Your task to perform on an android device: What is the news today? Image 0: 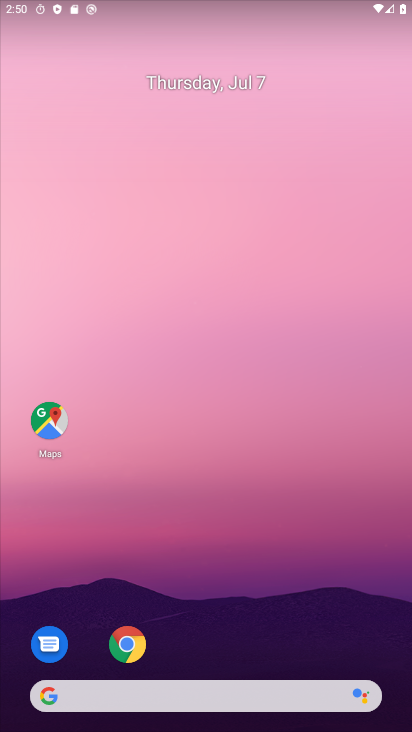
Step 0: drag from (22, 487) to (388, 514)
Your task to perform on an android device: What is the news today? Image 1: 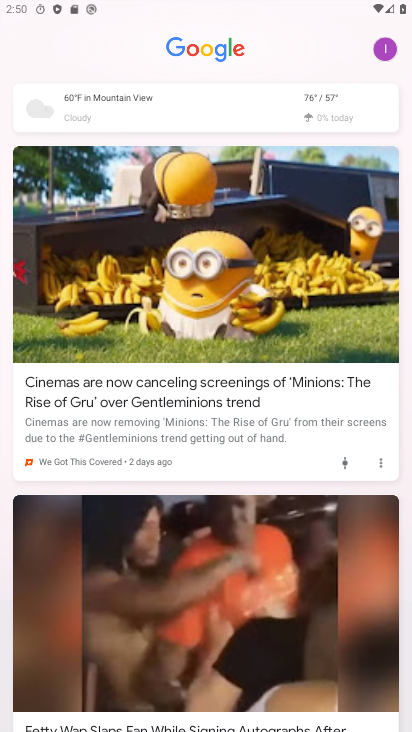
Step 1: task complete